Your task to perform on an android device: Search for Mexican restaurants on Maps Image 0: 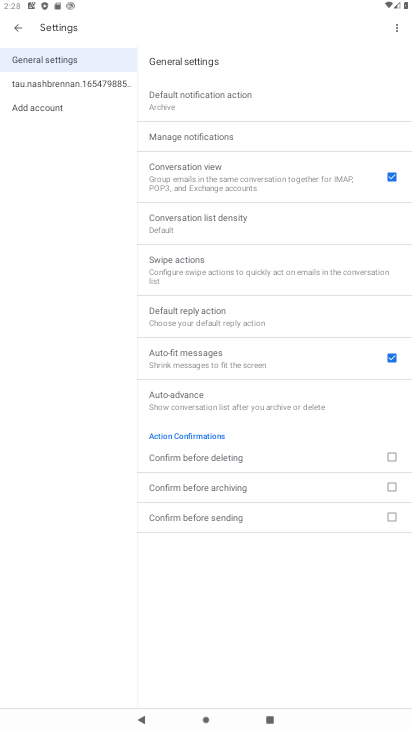
Step 0: press home button
Your task to perform on an android device: Search for Mexican restaurants on Maps Image 1: 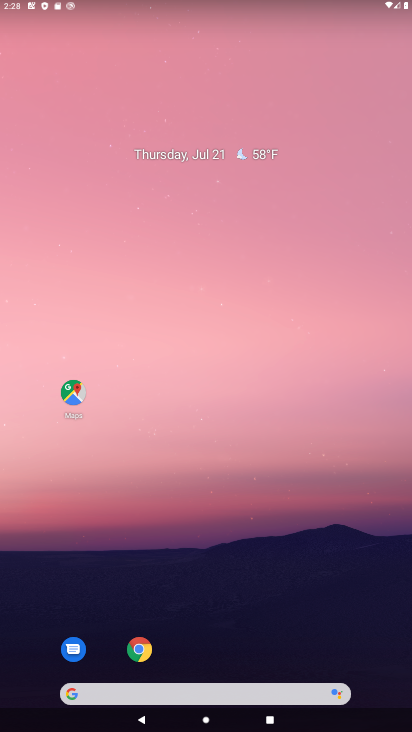
Step 1: click (55, 395)
Your task to perform on an android device: Search for Mexican restaurants on Maps Image 2: 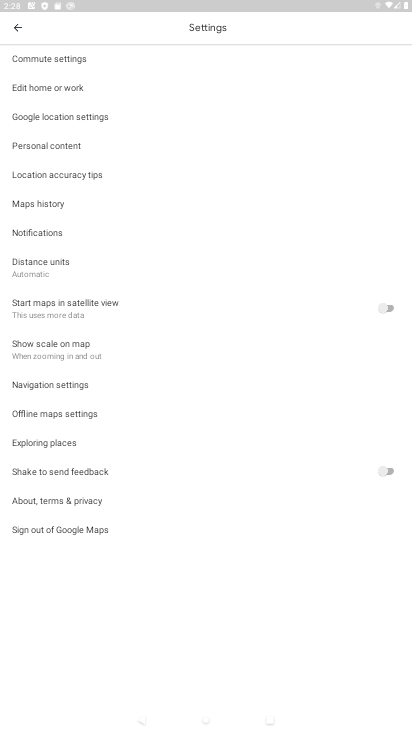
Step 2: press back button
Your task to perform on an android device: Search for Mexican restaurants on Maps Image 3: 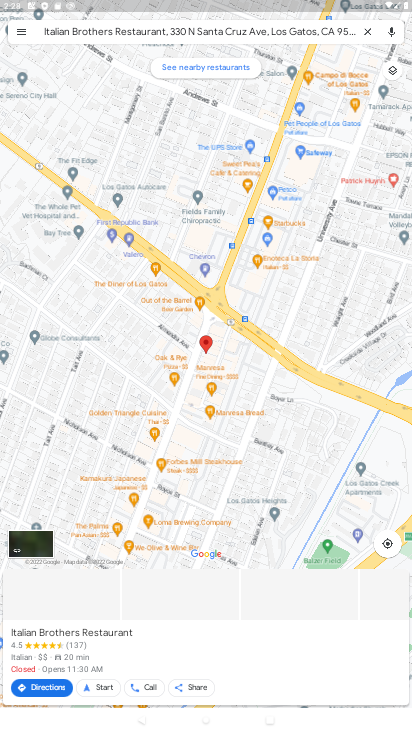
Step 3: press back button
Your task to perform on an android device: Search for Mexican restaurants on Maps Image 4: 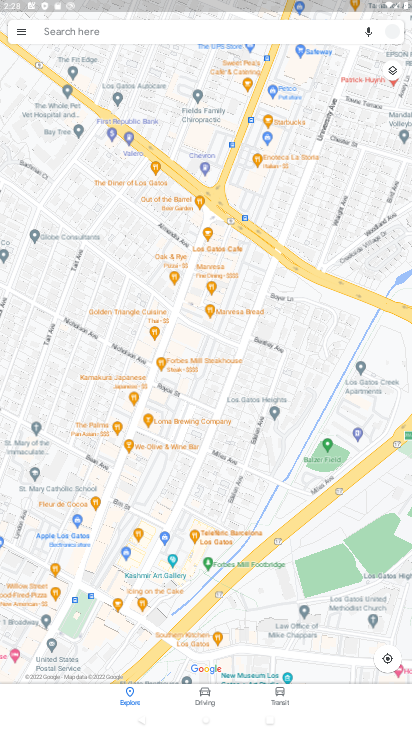
Step 4: press back button
Your task to perform on an android device: Search for Mexican restaurants on Maps Image 5: 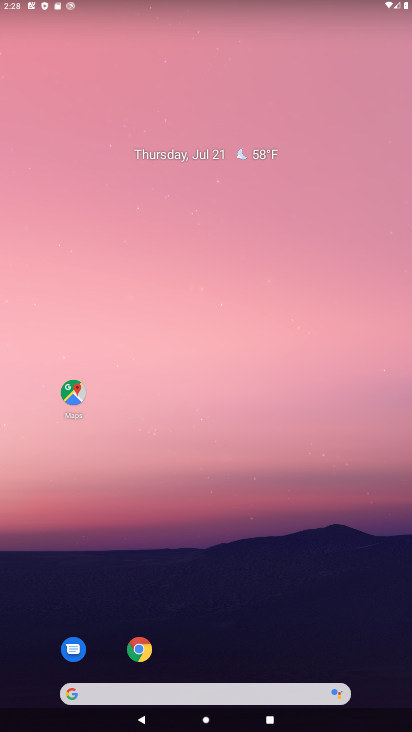
Step 5: click (215, 690)
Your task to perform on an android device: Search for Mexican restaurants on Maps Image 6: 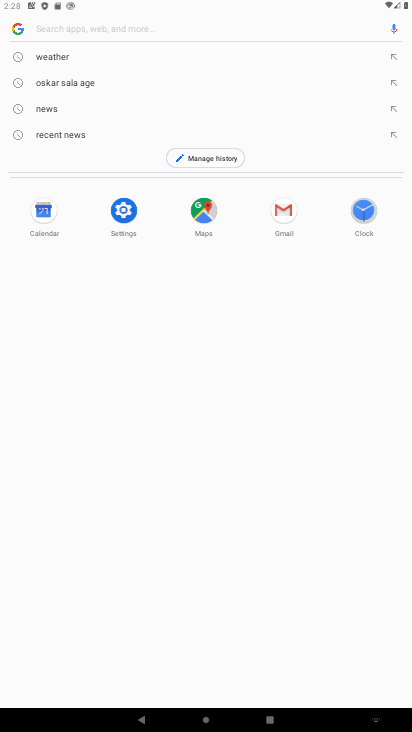
Step 6: task complete